Your task to perform on an android device: Open calendar and show me the first week of next month Image 0: 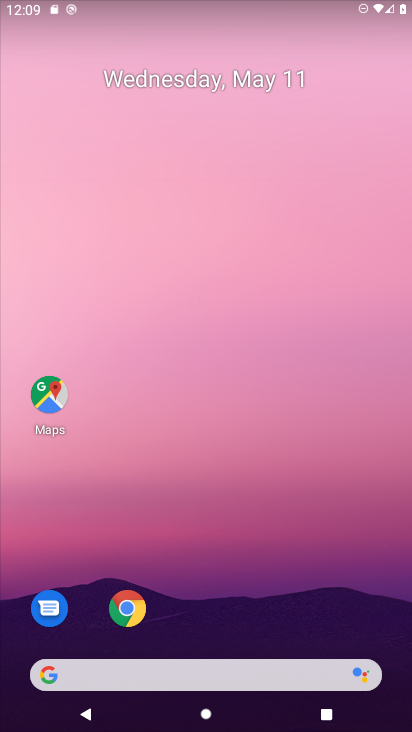
Step 0: drag from (231, 564) to (276, 64)
Your task to perform on an android device: Open calendar and show me the first week of next month Image 1: 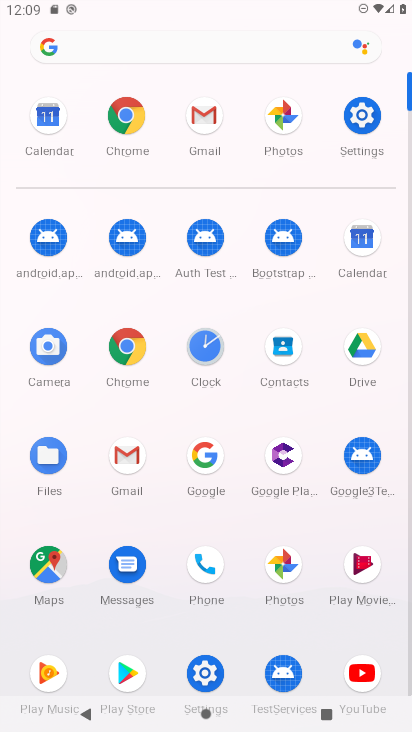
Step 1: click (46, 115)
Your task to perform on an android device: Open calendar and show me the first week of next month Image 2: 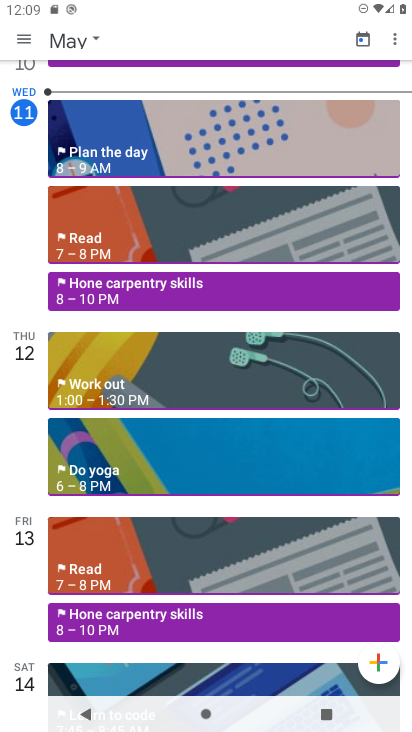
Step 2: click (22, 32)
Your task to perform on an android device: Open calendar and show me the first week of next month Image 3: 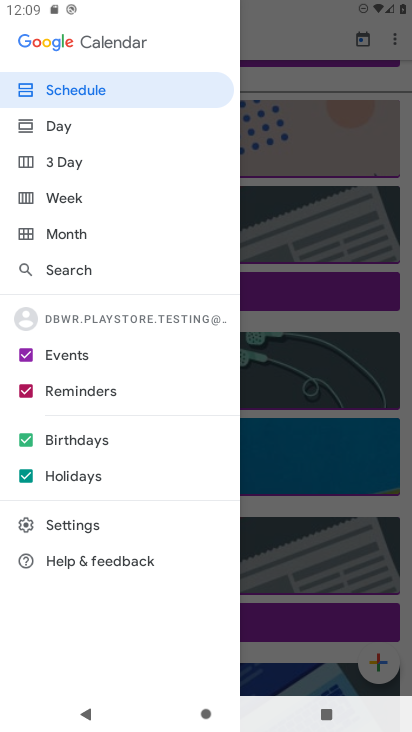
Step 3: click (65, 231)
Your task to perform on an android device: Open calendar and show me the first week of next month Image 4: 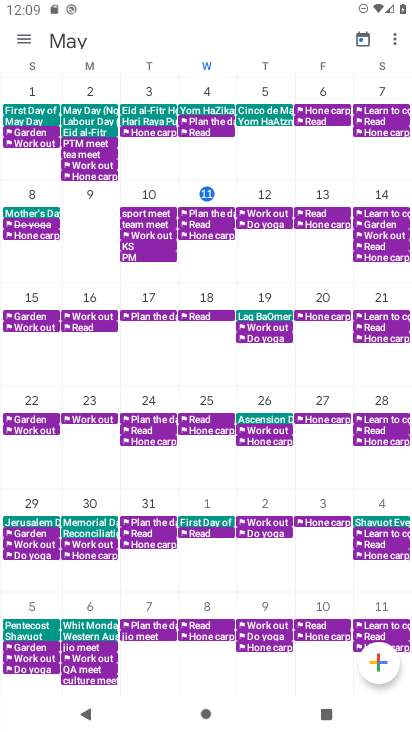
Step 4: drag from (351, 477) to (1, 534)
Your task to perform on an android device: Open calendar and show me the first week of next month Image 5: 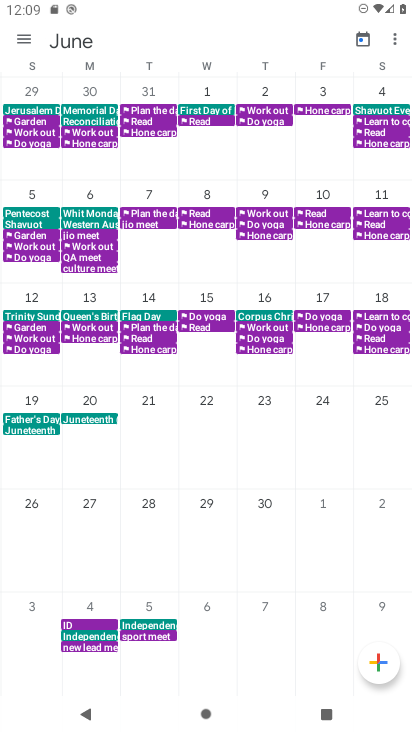
Step 5: click (27, 219)
Your task to perform on an android device: Open calendar and show me the first week of next month Image 6: 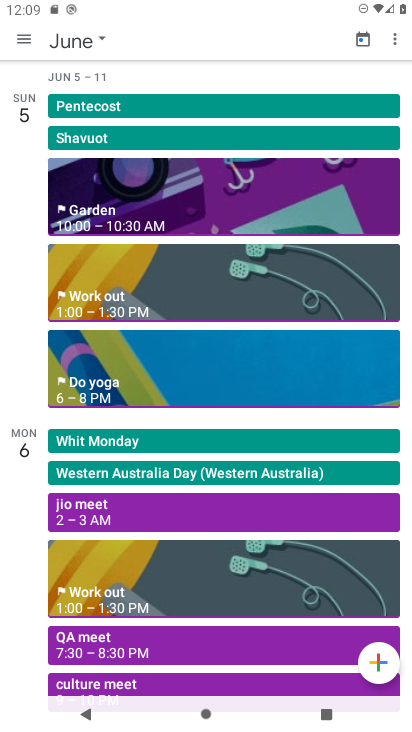
Step 6: click (27, 35)
Your task to perform on an android device: Open calendar and show me the first week of next month Image 7: 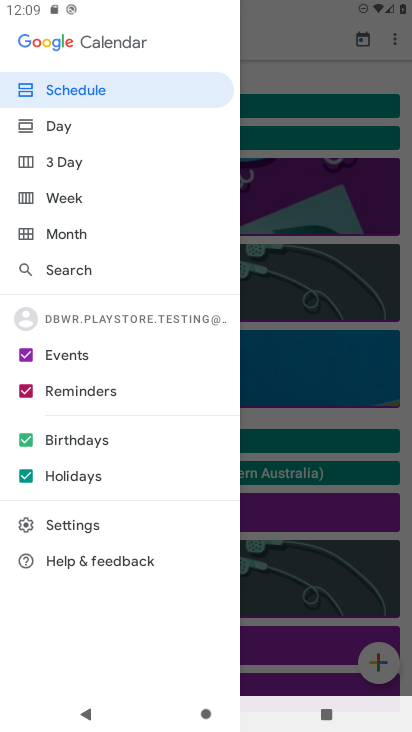
Step 7: click (53, 193)
Your task to perform on an android device: Open calendar and show me the first week of next month Image 8: 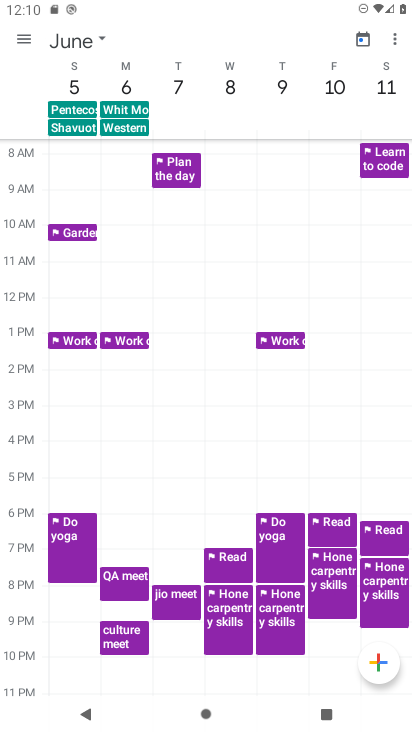
Step 8: task complete